Your task to perform on an android device: What is the recent news? Image 0: 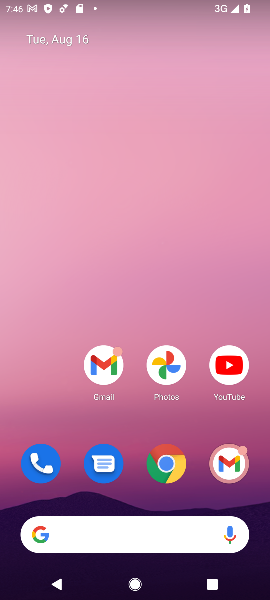
Step 0: click (138, 533)
Your task to perform on an android device: What is the recent news? Image 1: 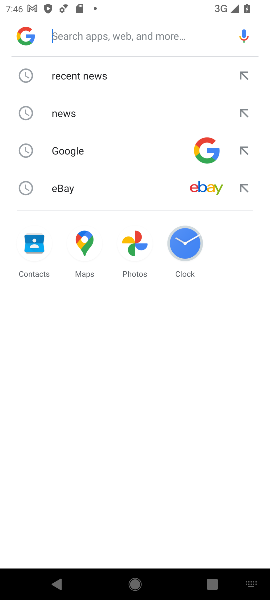
Step 1: click (67, 84)
Your task to perform on an android device: What is the recent news? Image 2: 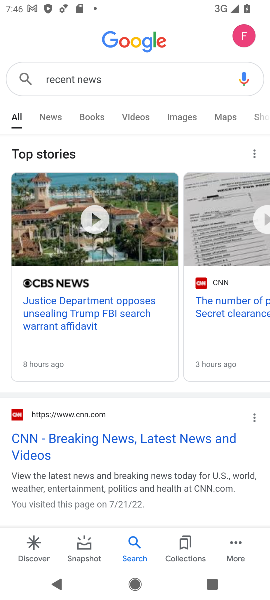
Step 2: task complete